Your task to perform on an android device: Open the Play Movies app and select the watchlist tab. Image 0: 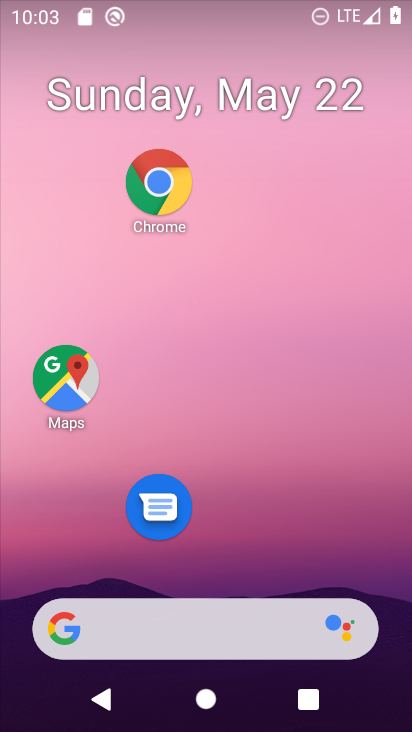
Step 0: drag from (274, 647) to (382, 36)
Your task to perform on an android device: Open the Play Movies app and select the watchlist tab. Image 1: 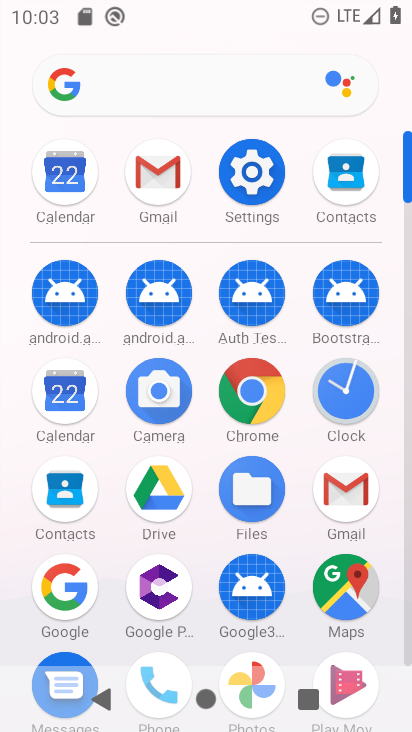
Step 1: drag from (269, 616) to (346, 103)
Your task to perform on an android device: Open the Play Movies app and select the watchlist tab. Image 2: 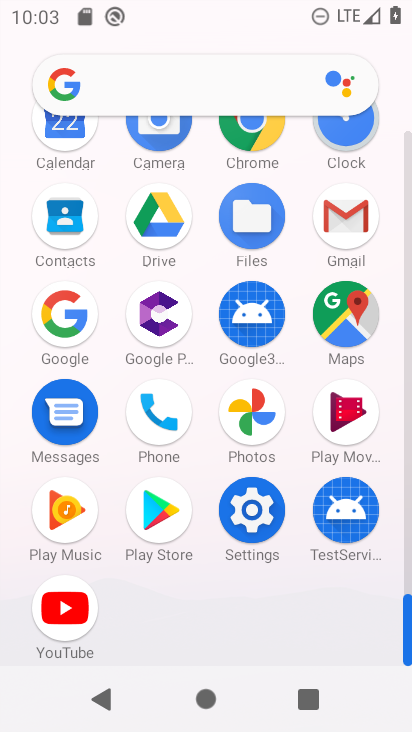
Step 2: click (341, 432)
Your task to perform on an android device: Open the Play Movies app and select the watchlist tab. Image 3: 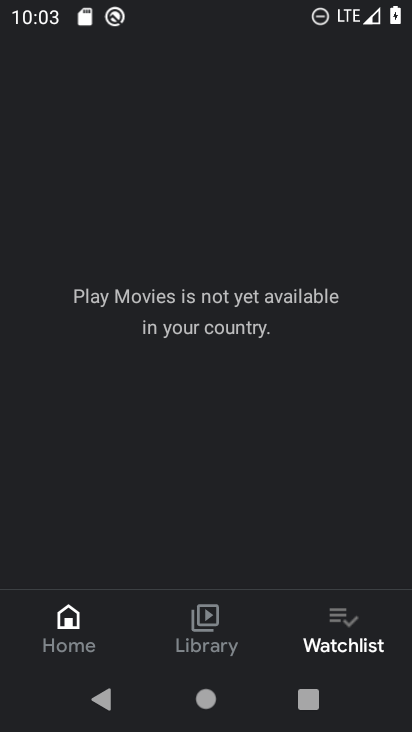
Step 3: click (361, 632)
Your task to perform on an android device: Open the Play Movies app and select the watchlist tab. Image 4: 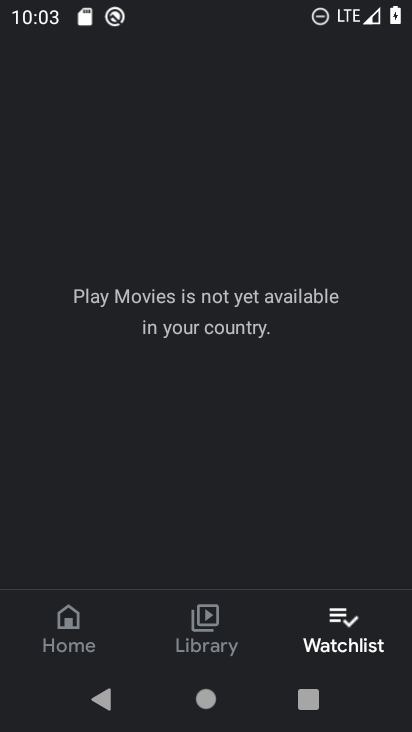
Step 4: task complete